Your task to perform on an android device: change alarm snooze length Image 0: 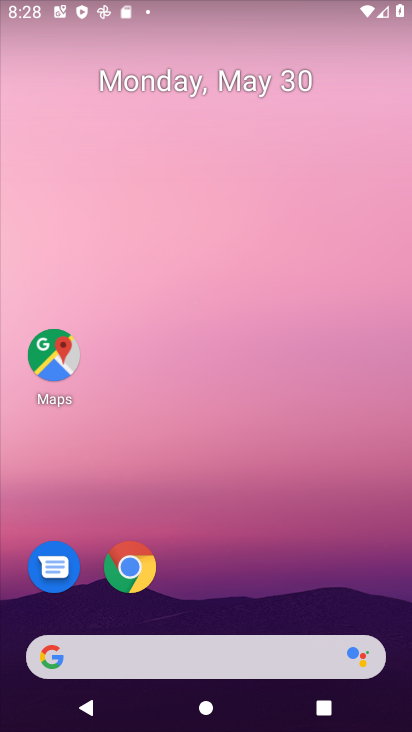
Step 0: drag from (269, 595) to (211, 107)
Your task to perform on an android device: change alarm snooze length Image 1: 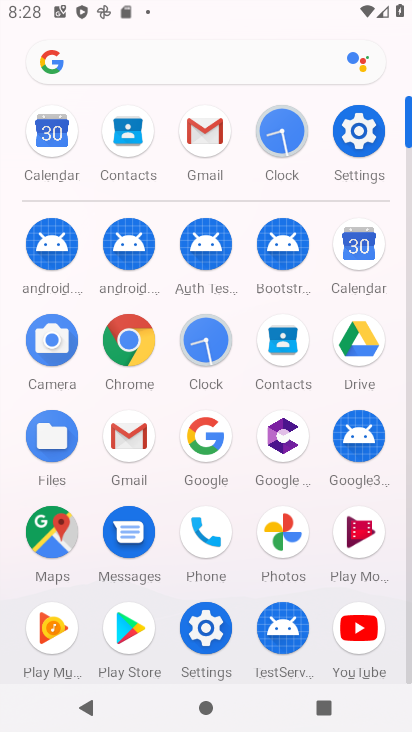
Step 1: click (279, 130)
Your task to perform on an android device: change alarm snooze length Image 2: 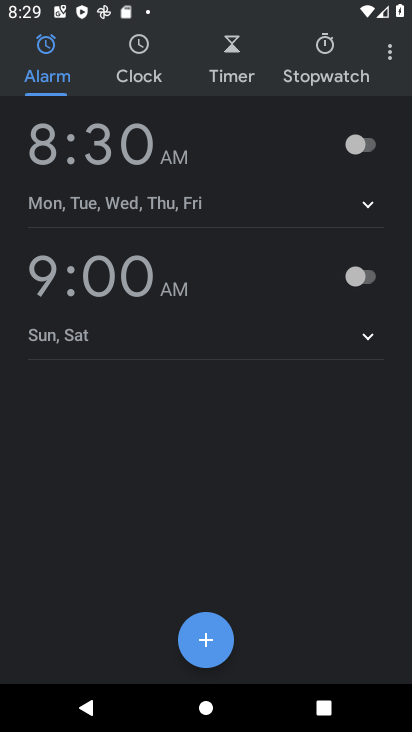
Step 2: click (384, 53)
Your task to perform on an android device: change alarm snooze length Image 3: 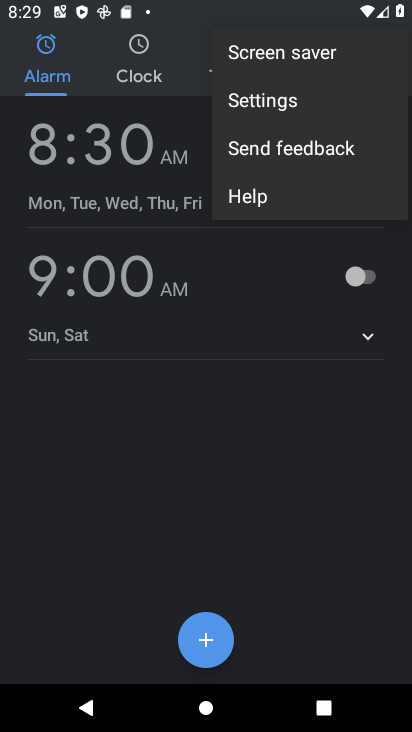
Step 3: click (284, 110)
Your task to perform on an android device: change alarm snooze length Image 4: 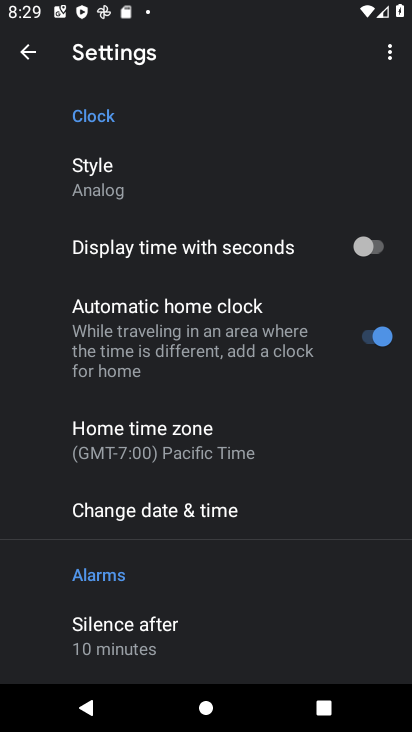
Step 4: drag from (178, 616) to (186, 475)
Your task to perform on an android device: change alarm snooze length Image 5: 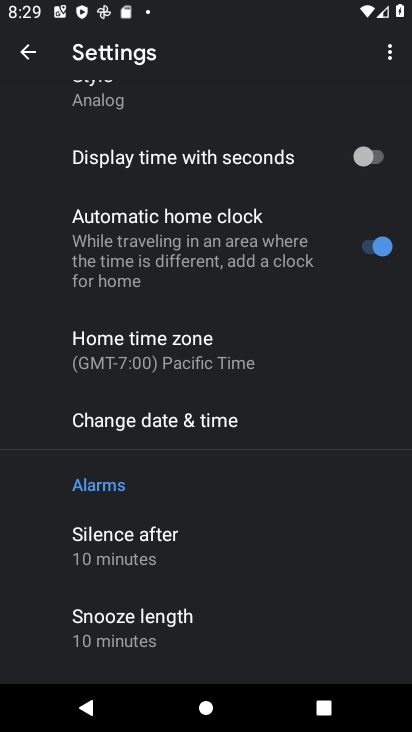
Step 5: click (174, 624)
Your task to perform on an android device: change alarm snooze length Image 6: 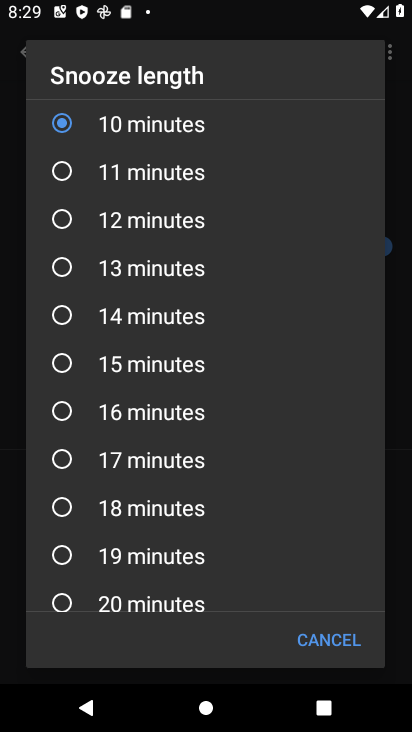
Step 6: click (228, 590)
Your task to perform on an android device: change alarm snooze length Image 7: 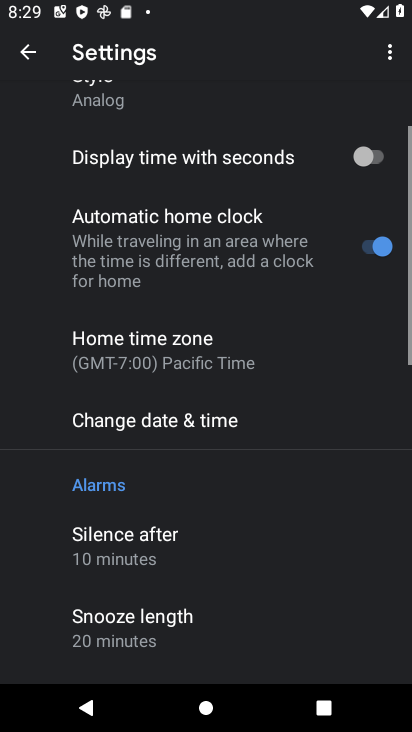
Step 7: task complete